Your task to perform on an android device: Open the phone app and click the voicemail tab. Image 0: 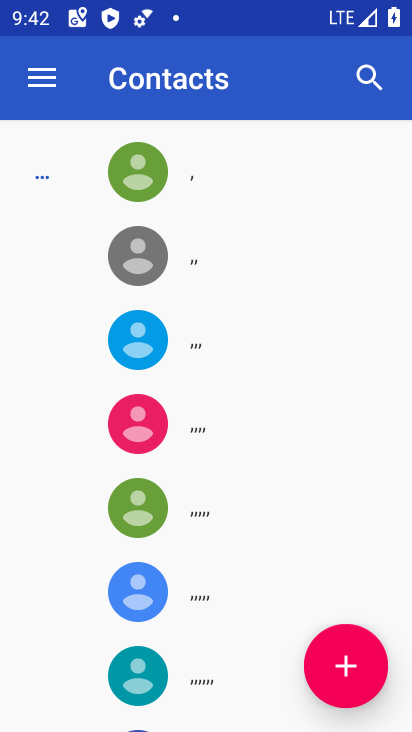
Step 0: press home button
Your task to perform on an android device: Open the phone app and click the voicemail tab. Image 1: 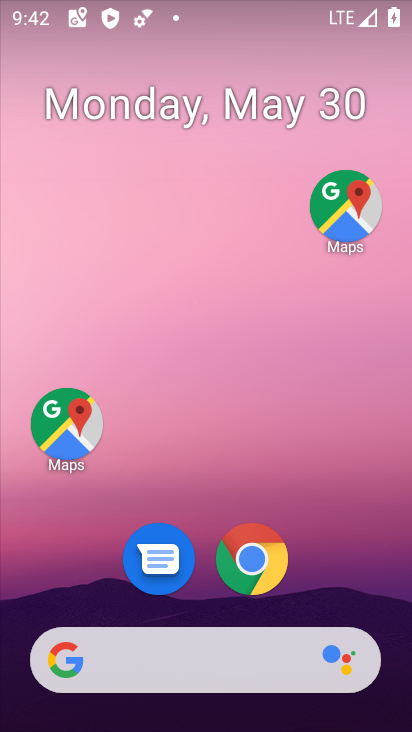
Step 1: drag from (313, 508) to (275, 116)
Your task to perform on an android device: Open the phone app and click the voicemail tab. Image 2: 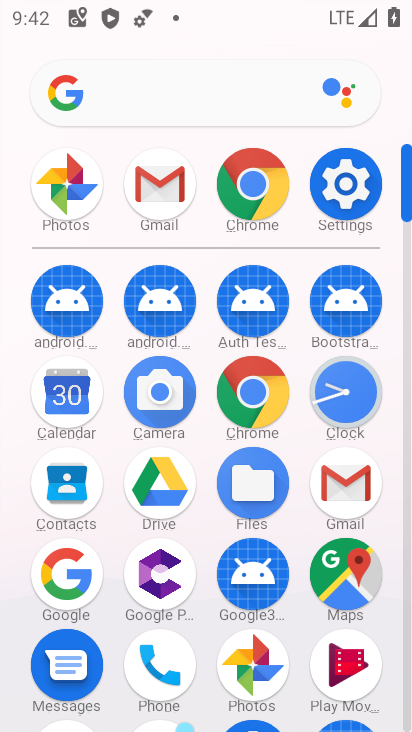
Step 2: click (163, 650)
Your task to perform on an android device: Open the phone app and click the voicemail tab. Image 3: 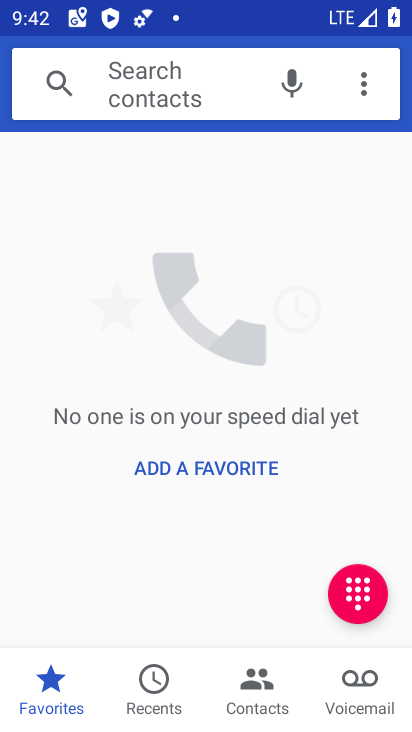
Step 3: click (352, 689)
Your task to perform on an android device: Open the phone app and click the voicemail tab. Image 4: 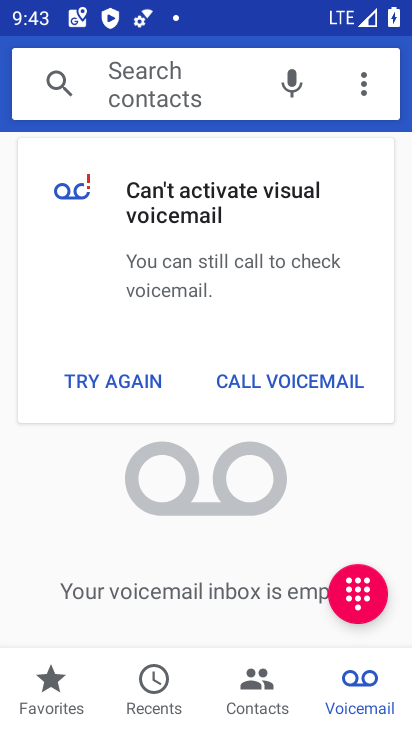
Step 4: task complete